Your task to perform on an android device: Open display settings Image 0: 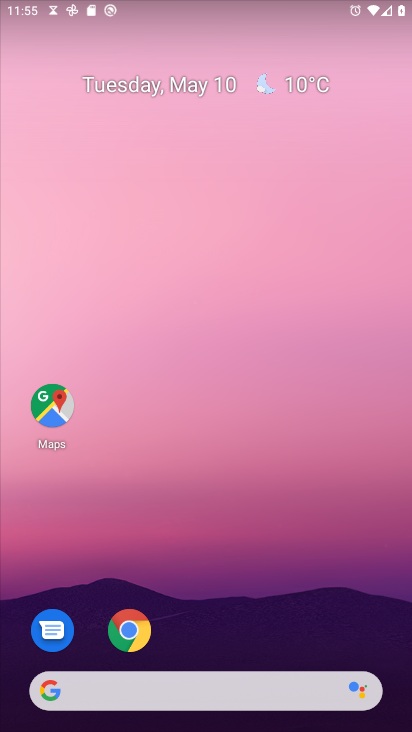
Step 0: drag from (255, 613) to (250, 198)
Your task to perform on an android device: Open display settings Image 1: 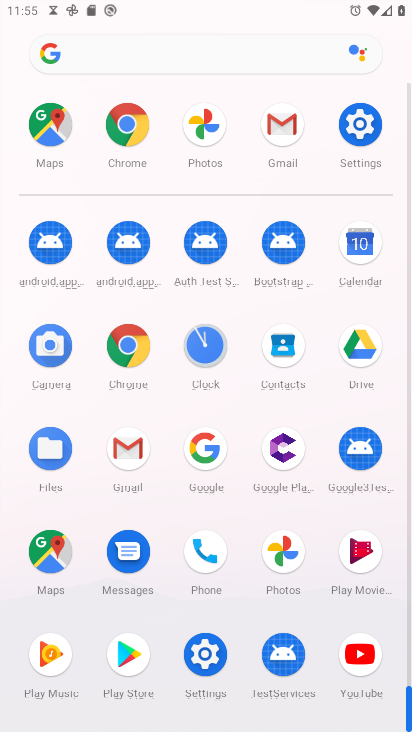
Step 1: click (361, 118)
Your task to perform on an android device: Open display settings Image 2: 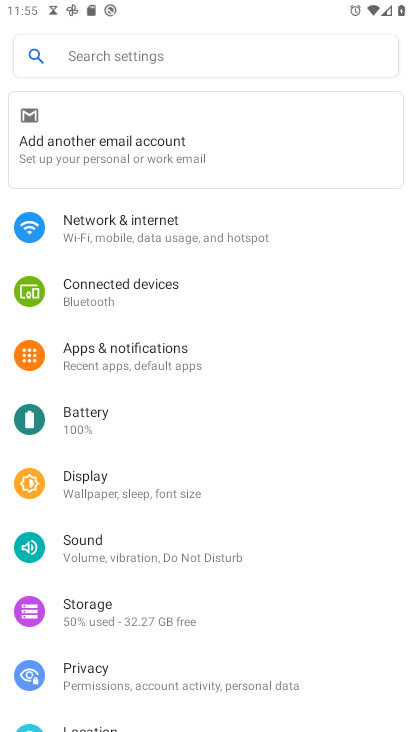
Step 2: click (129, 482)
Your task to perform on an android device: Open display settings Image 3: 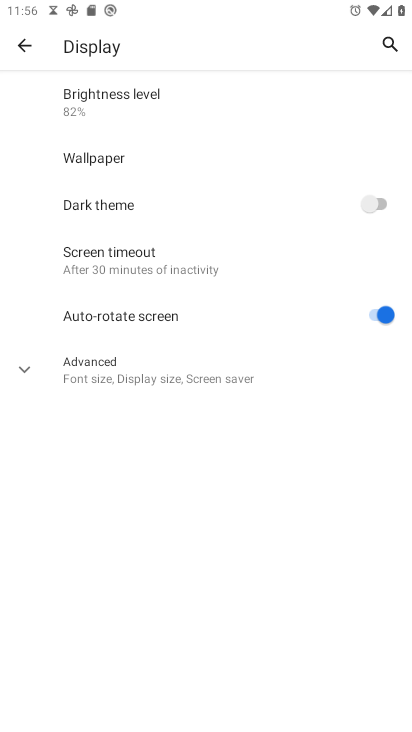
Step 3: task complete